Your task to perform on an android device: What's the weather going to be tomorrow? Image 0: 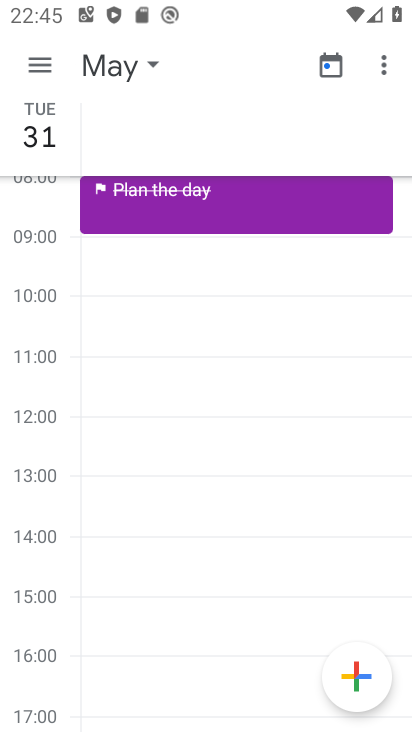
Step 0: press home button
Your task to perform on an android device: What's the weather going to be tomorrow? Image 1: 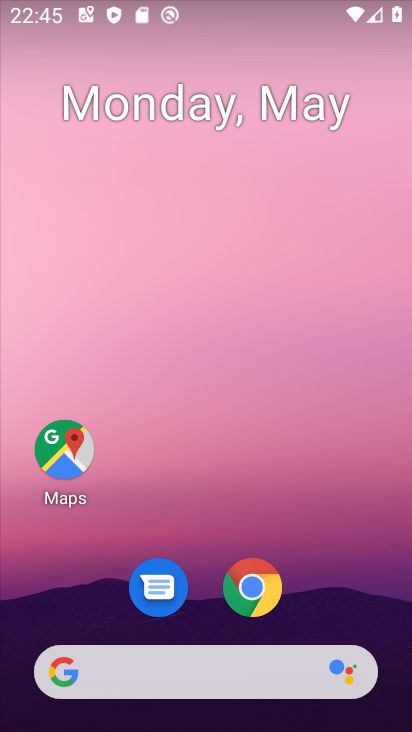
Step 1: drag from (211, 623) to (202, 68)
Your task to perform on an android device: What's the weather going to be tomorrow? Image 2: 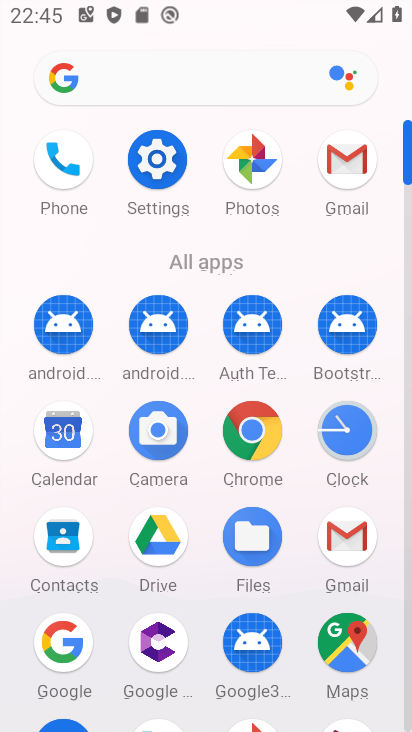
Step 2: click (59, 644)
Your task to perform on an android device: What's the weather going to be tomorrow? Image 3: 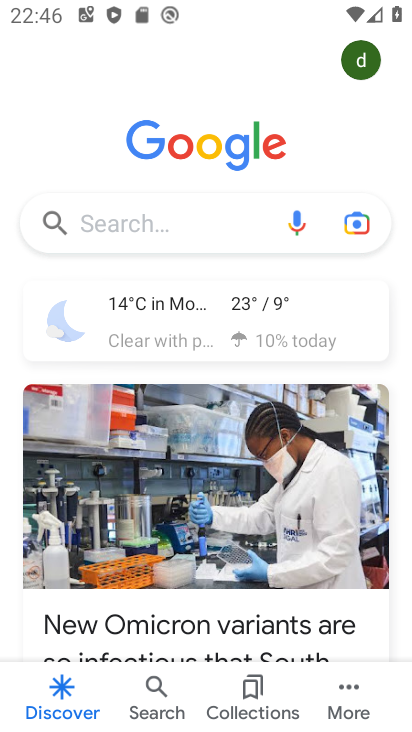
Step 3: drag from (233, 523) to (221, 369)
Your task to perform on an android device: What's the weather going to be tomorrow? Image 4: 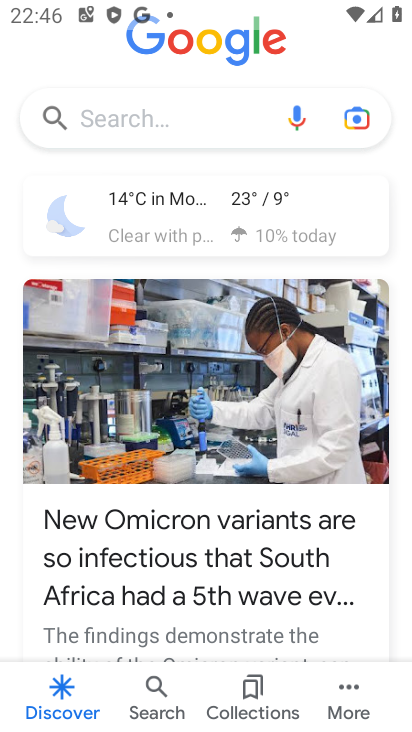
Step 4: click (202, 191)
Your task to perform on an android device: What's the weather going to be tomorrow? Image 5: 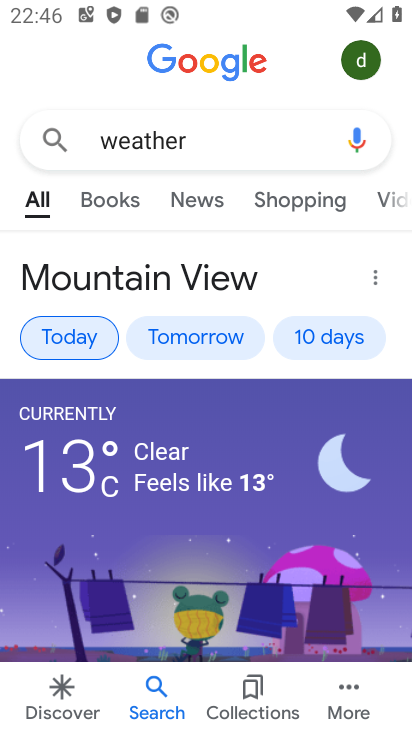
Step 5: click (197, 330)
Your task to perform on an android device: What's the weather going to be tomorrow? Image 6: 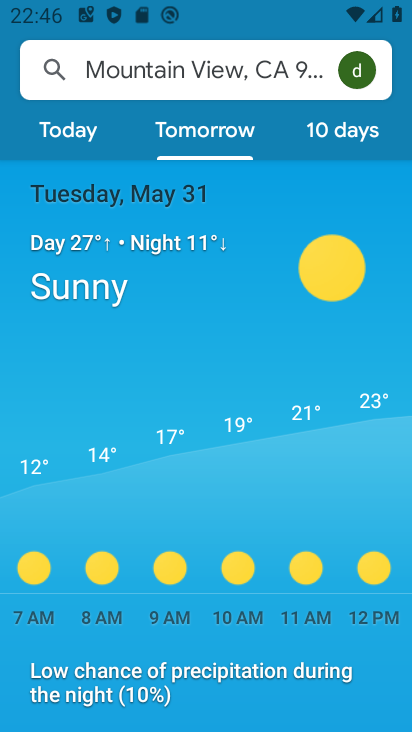
Step 6: task complete